Your task to perform on an android device: Open notification settings Image 0: 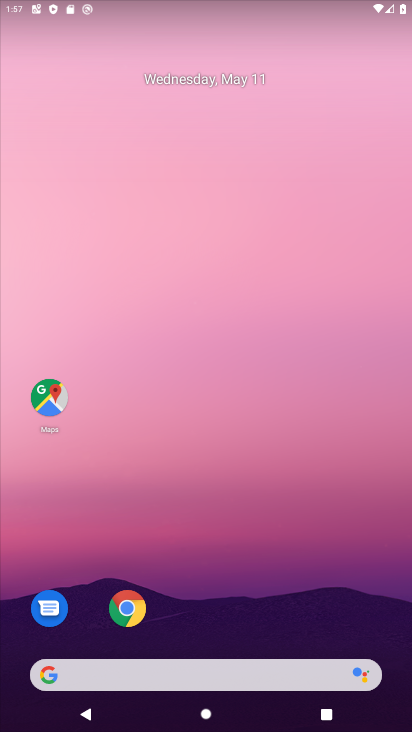
Step 0: click (237, 247)
Your task to perform on an android device: Open notification settings Image 1: 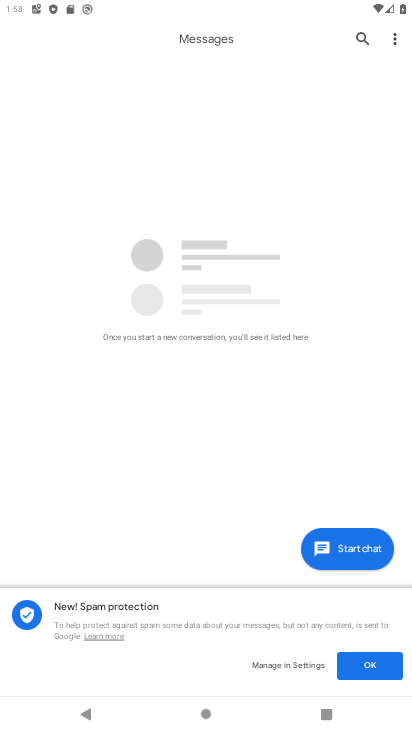
Step 1: task complete